Your task to perform on an android device: change timer sound Image 0: 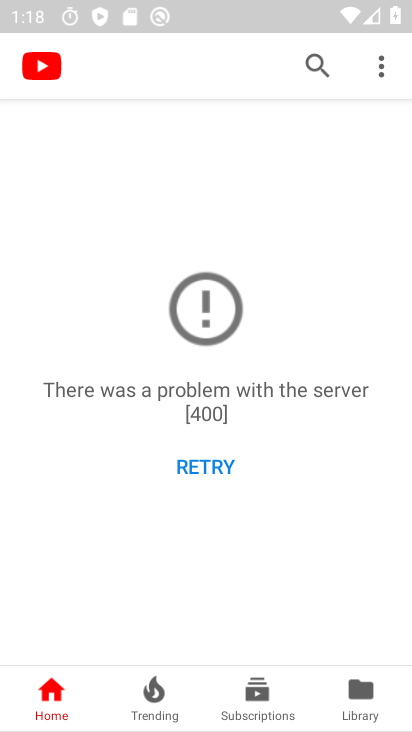
Step 0: press home button
Your task to perform on an android device: change timer sound Image 1: 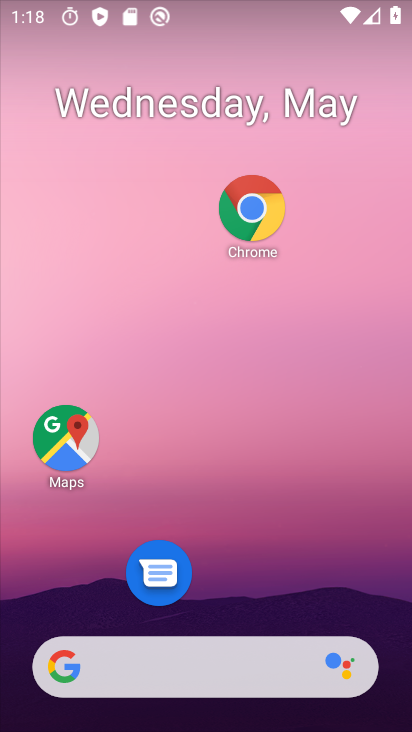
Step 1: drag from (233, 626) to (187, 210)
Your task to perform on an android device: change timer sound Image 2: 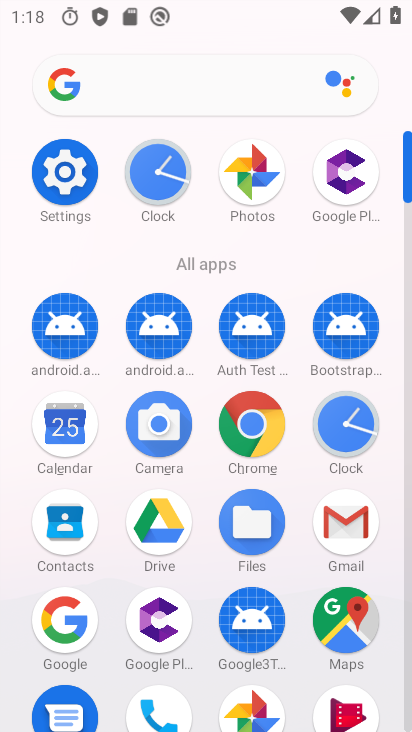
Step 2: click (151, 155)
Your task to perform on an android device: change timer sound Image 3: 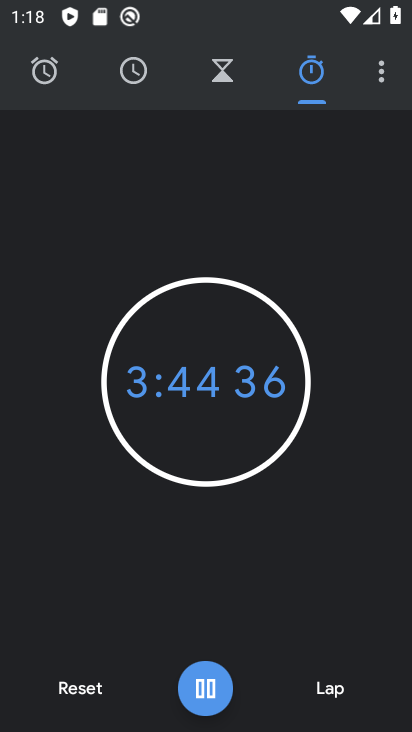
Step 3: click (395, 72)
Your task to perform on an android device: change timer sound Image 4: 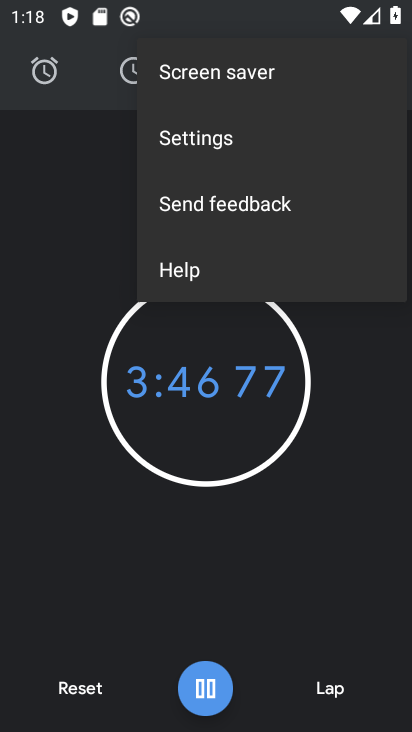
Step 4: click (243, 153)
Your task to perform on an android device: change timer sound Image 5: 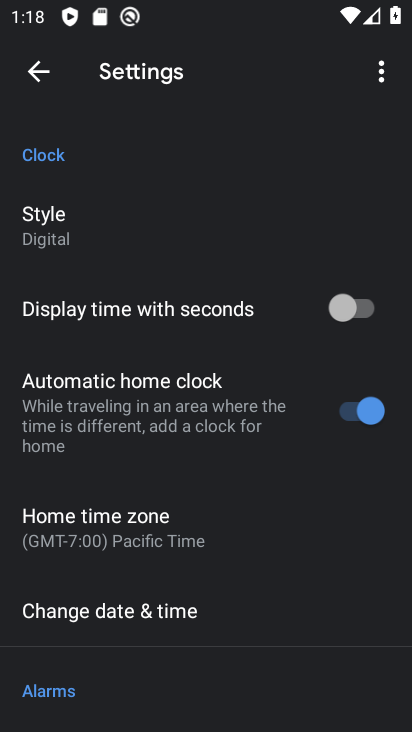
Step 5: drag from (162, 672) to (193, 346)
Your task to perform on an android device: change timer sound Image 6: 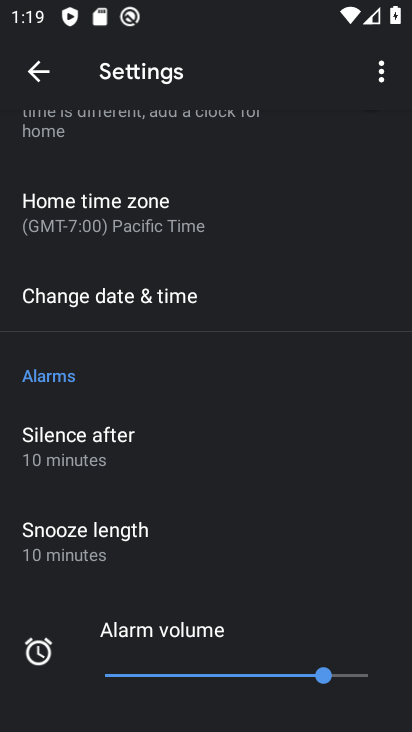
Step 6: drag from (149, 690) to (235, 237)
Your task to perform on an android device: change timer sound Image 7: 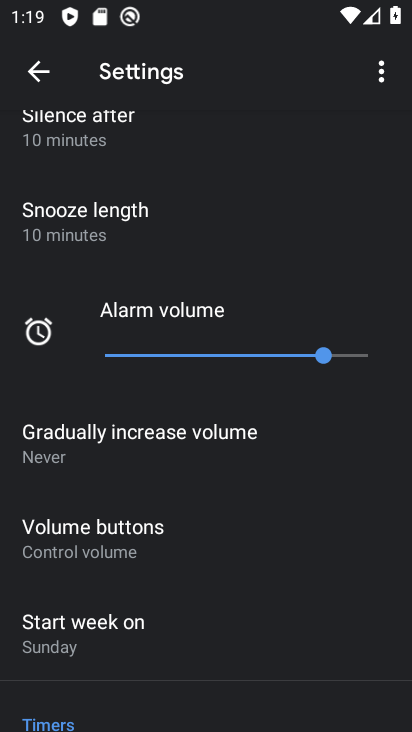
Step 7: drag from (122, 702) to (137, 269)
Your task to perform on an android device: change timer sound Image 8: 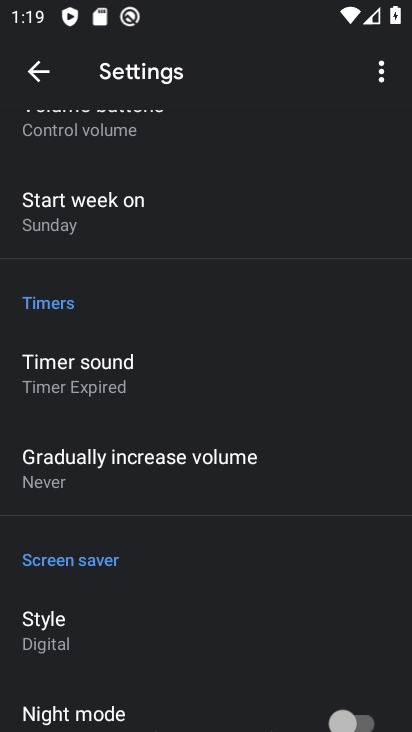
Step 8: click (120, 370)
Your task to perform on an android device: change timer sound Image 9: 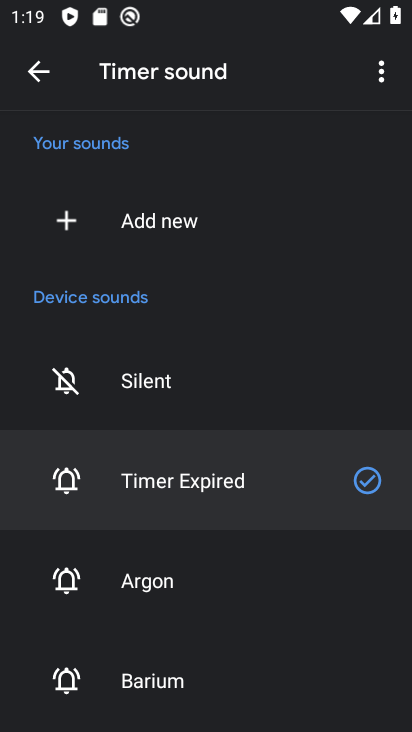
Step 9: click (108, 682)
Your task to perform on an android device: change timer sound Image 10: 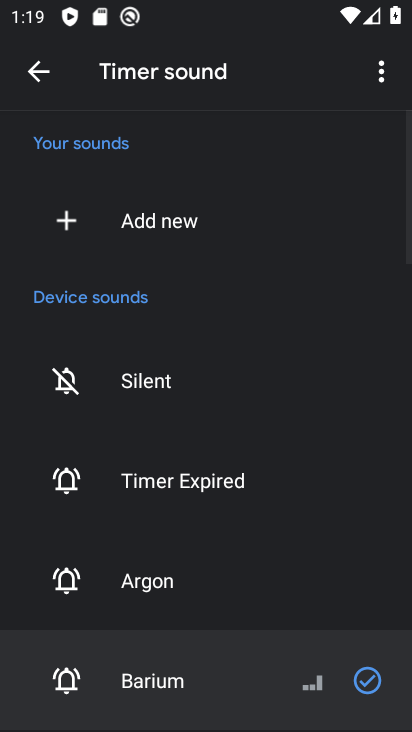
Step 10: task complete